Your task to perform on an android device: Open Google Maps and go to "Timeline" Image 0: 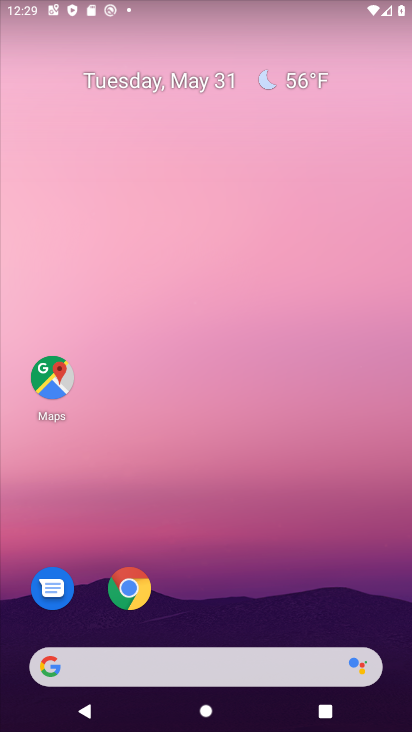
Step 0: click (42, 372)
Your task to perform on an android device: Open Google Maps and go to "Timeline" Image 1: 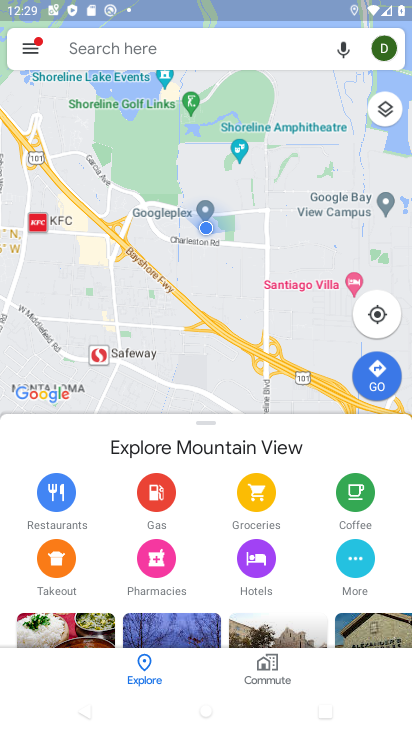
Step 1: click (32, 53)
Your task to perform on an android device: Open Google Maps and go to "Timeline" Image 2: 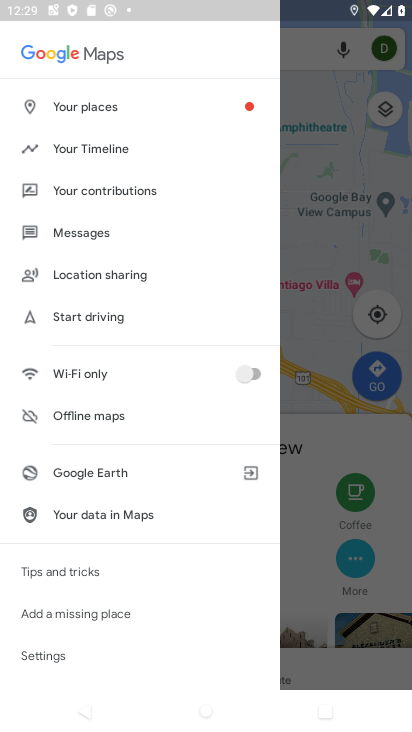
Step 2: click (63, 151)
Your task to perform on an android device: Open Google Maps and go to "Timeline" Image 3: 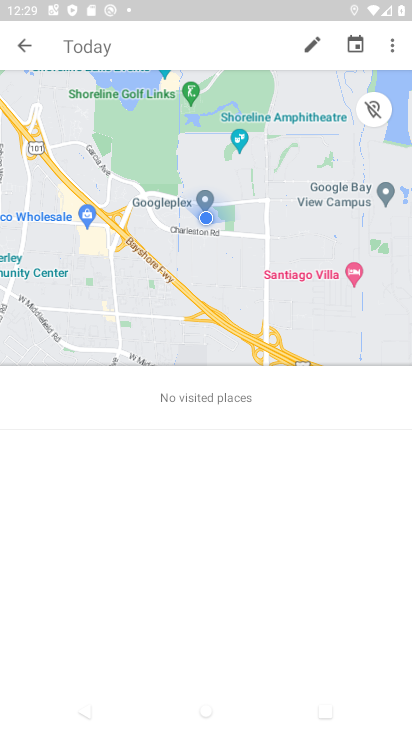
Step 3: task complete